Your task to perform on an android device: Do I have any events today? Image 0: 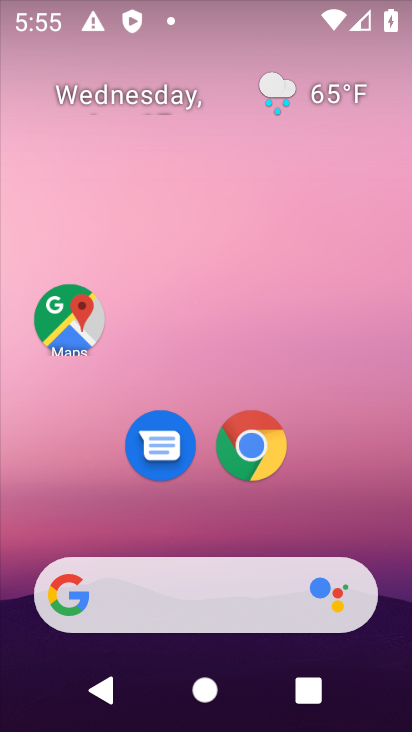
Step 0: drag from (178, 436) to (183, 166)
Your task to perform on an android device: Do I have any events today? Image 1: 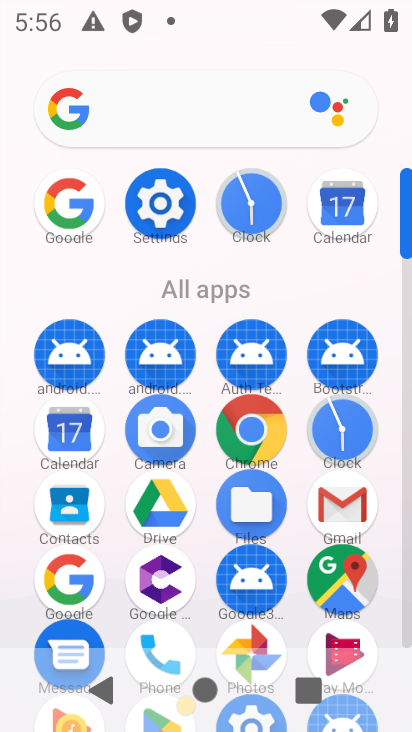
Step 1: click (348, 217)
Your task to perform on an android device: Do I have any events today? Image 2: 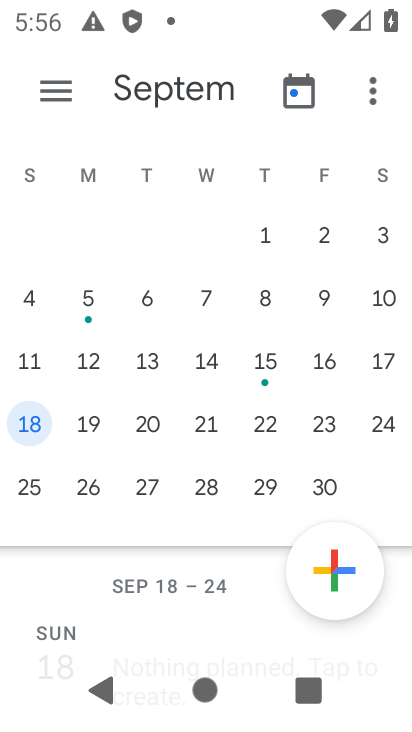
Step 2: drag from (53, 339) to (328, 320)
Your task to perform on an android device: Do I have any events today? Image 3: 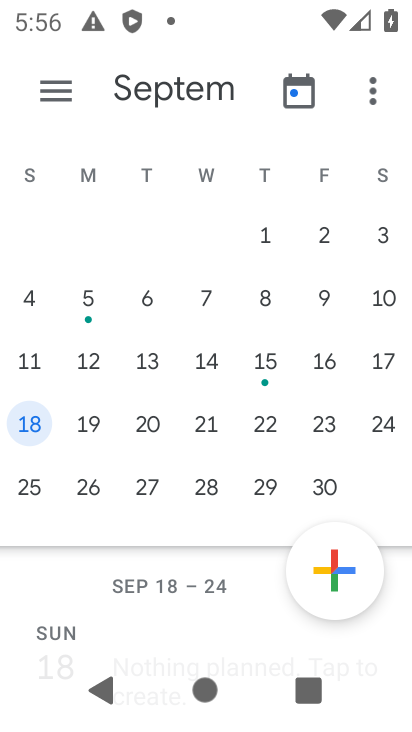
Step 3: drag from (36, 344) to (334, 328)
Your task to perform on an android device: Do I have any events today? Image 4: 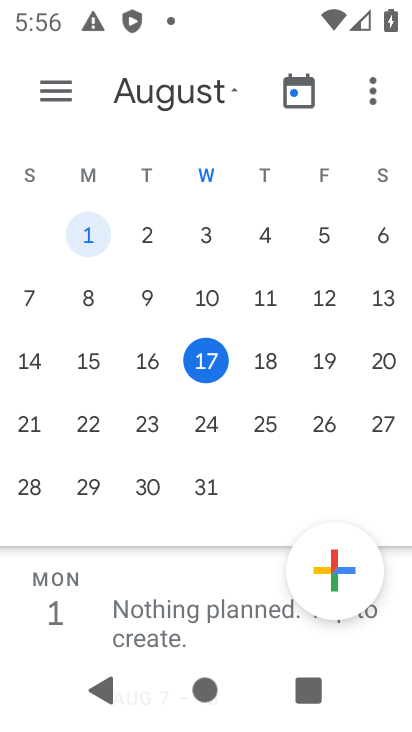
Step 4: click (200, 366)
Your task to perform on an android device: Do I have any events today? Image 5: 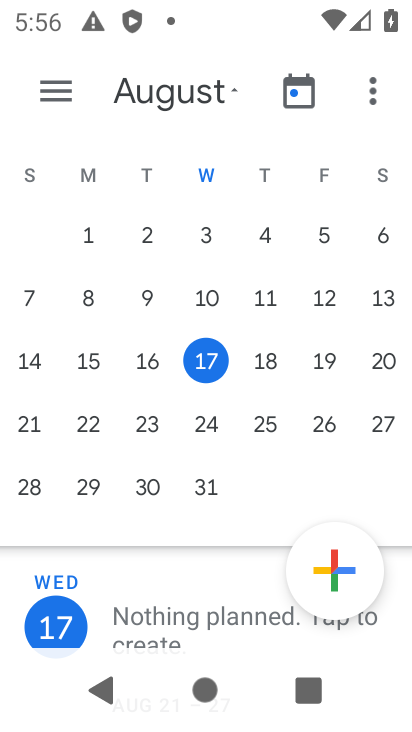
Step 5: click (187, 368)
Your task to perform on an android device: Do I have any events today? Image 6: 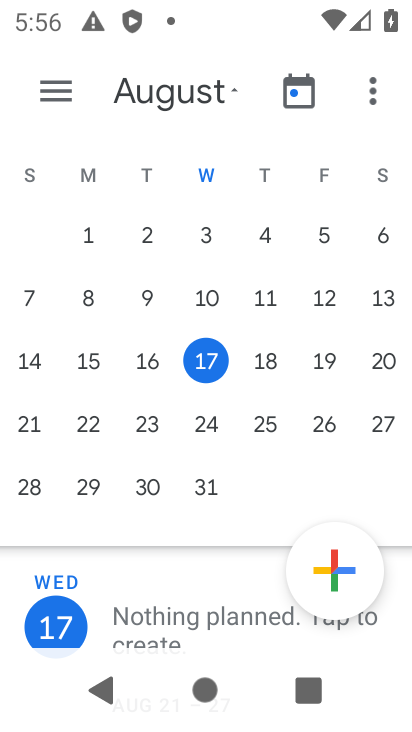
Step 6: task complete